Your task to perform on an android device: Go to location settings Image 0: 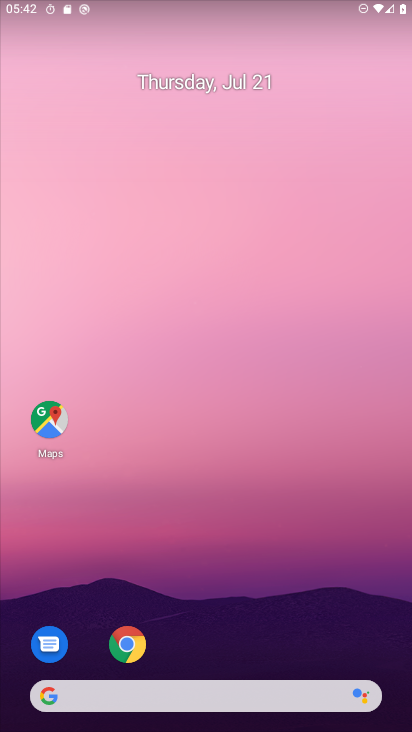
Step 0: drag from (189, 587) to (209, 153)
Your task to perform on an android device: Go to location settings Image 1: 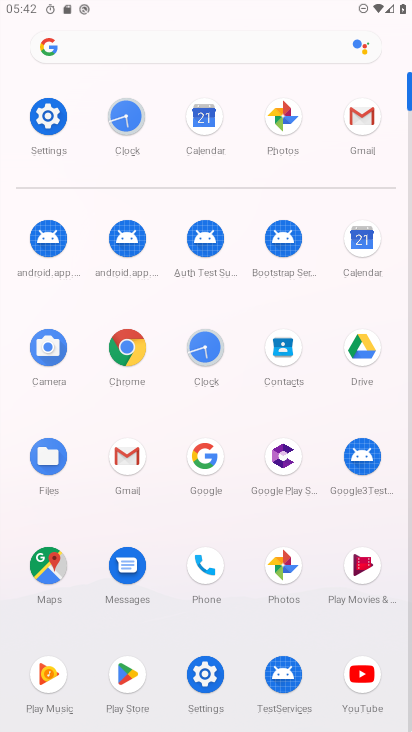
Step 1: click (46, 130)
Your task to perform on an android device: Go to location settings Image 2: 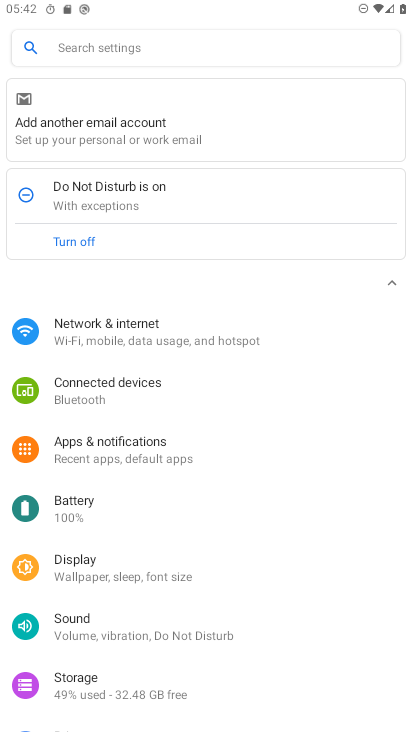
Step 2: drag from (136, 569) to (155, 281)
Your task to perform on an android device: Go to location settings Image 3: 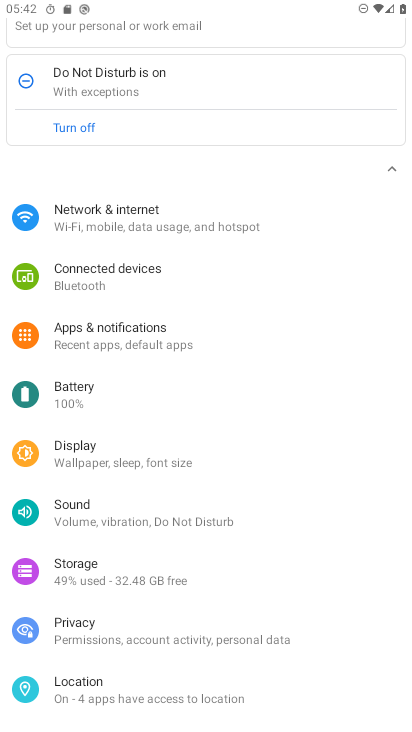
Step 3: click (126, 687)
Your task to perform on an android device: Go to location settings Image 4: 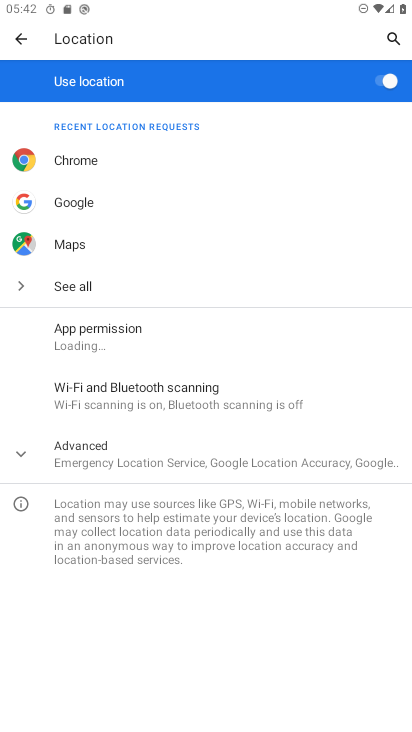
Step 4: task complete